Your task to perform on an android device: turn off smart reply in the gmail app Image 0: 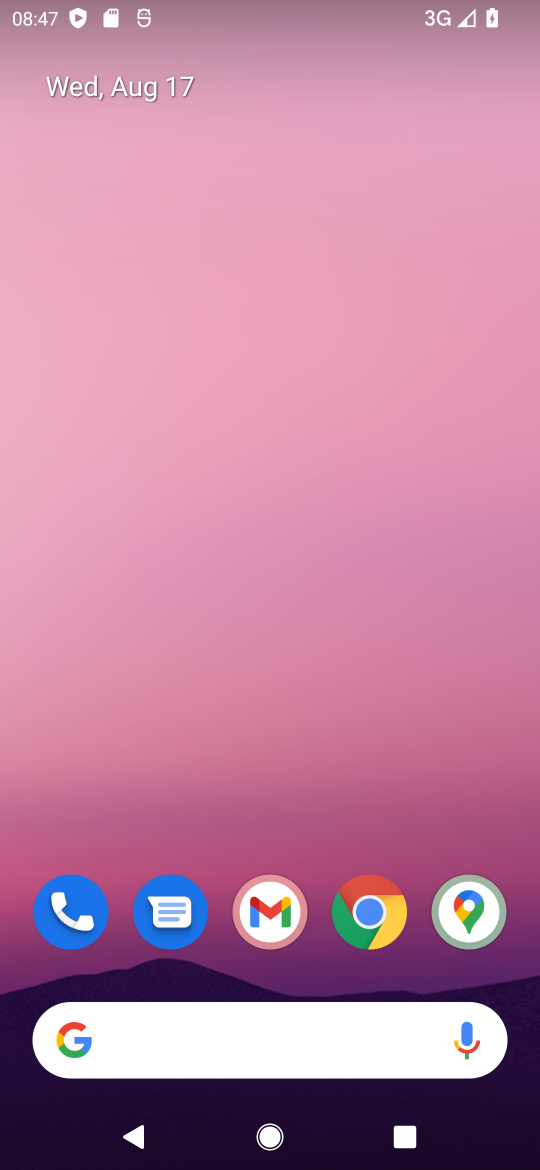
Step 0: drag from (278, 1009) to (247, 128)
Your task to perform on an android device: turn off smart reply in the gmail app Image 1: 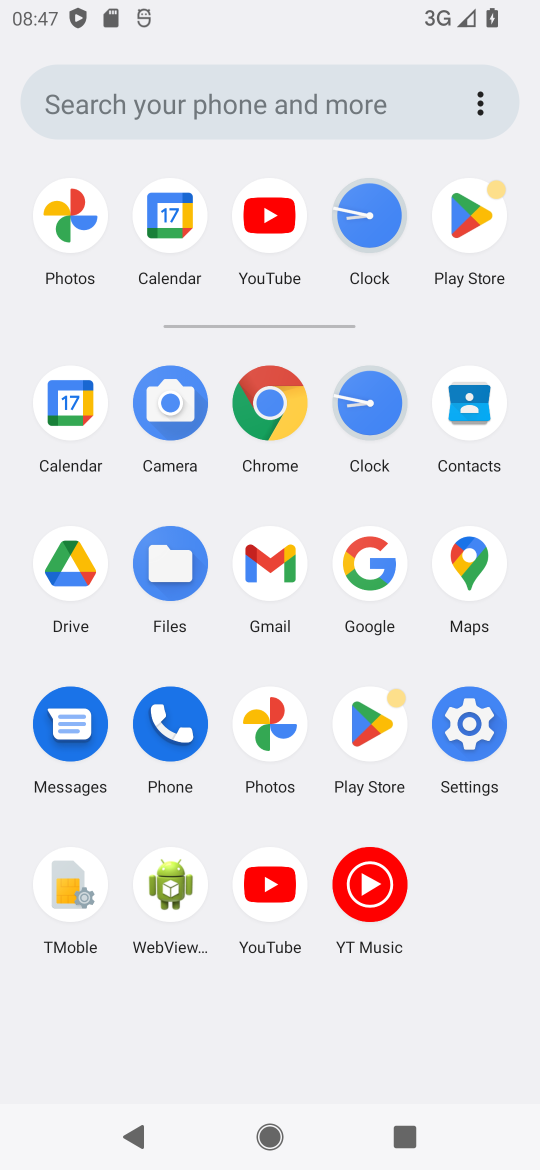
Step 1: click (267, 576)
Your task to perform on an android device: turn off smart reply in the gmail app Image 2: 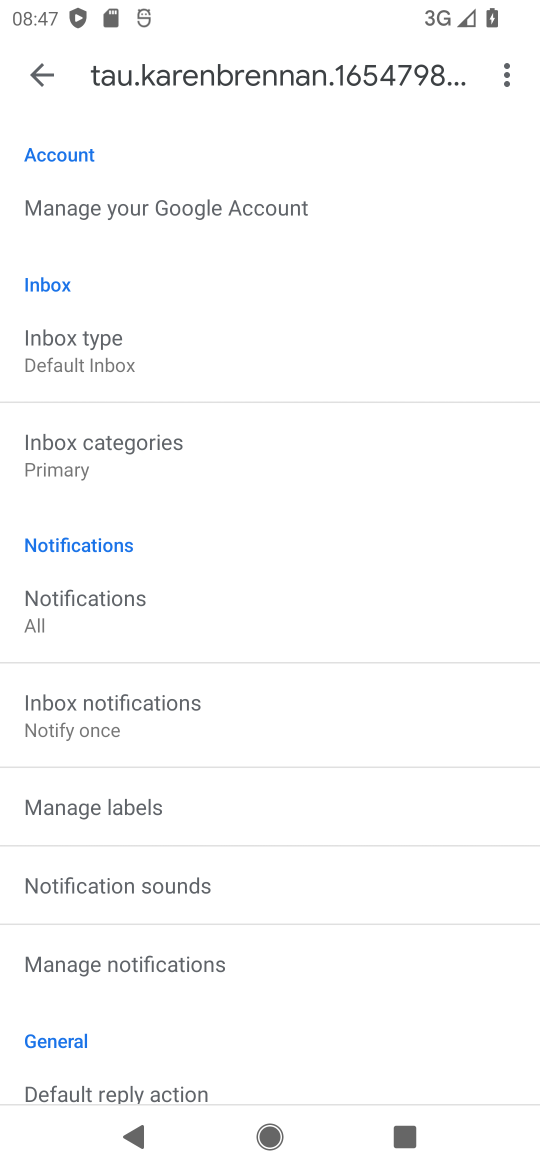
Step 2: drag from (145, 868) to (102, 279)
Your task to perform on an android device: turn off smart reply in the gmail app Image 3: 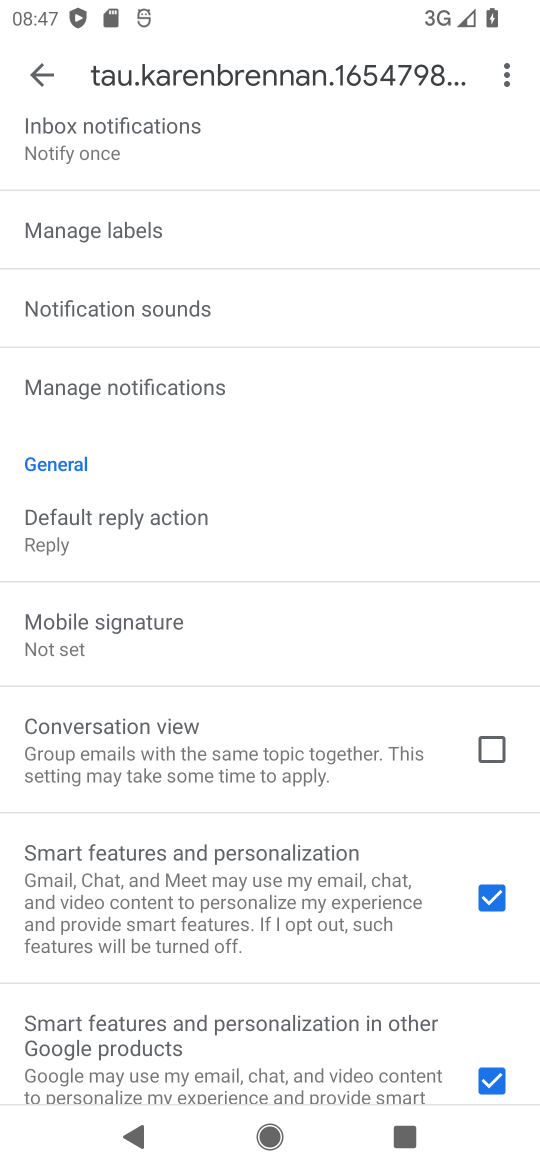
Step 3: drag from (141, 767) to (106, 372)
Your task to perform on an android device: turn off smart reply in the gmail app Image 4: 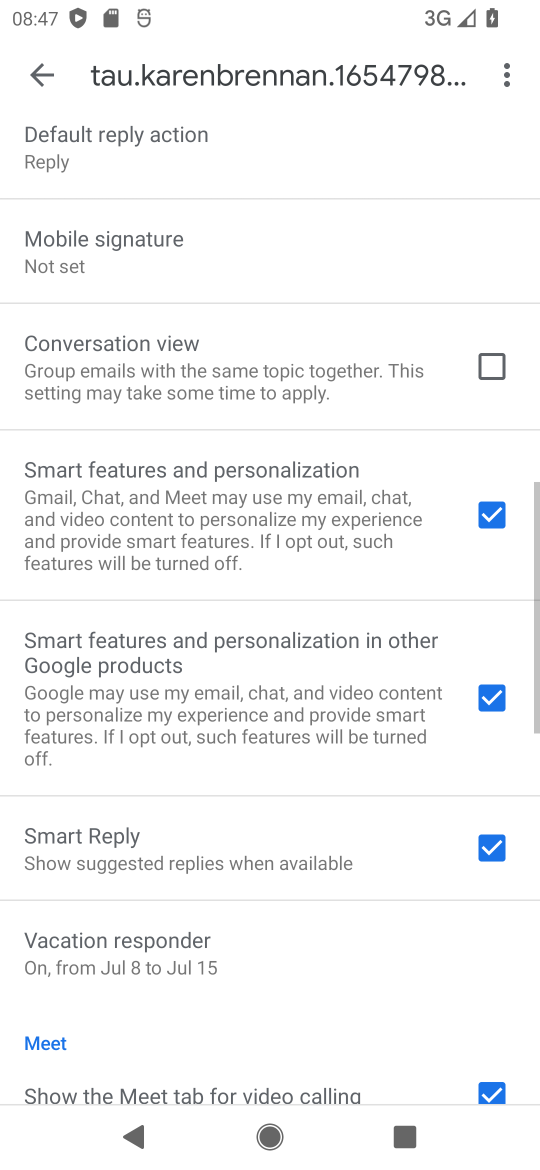
Step 4: drag from (134, 993) to (136, 424)
Your task to perform on an android device: turn off smart reply in the gmail app Image 5: 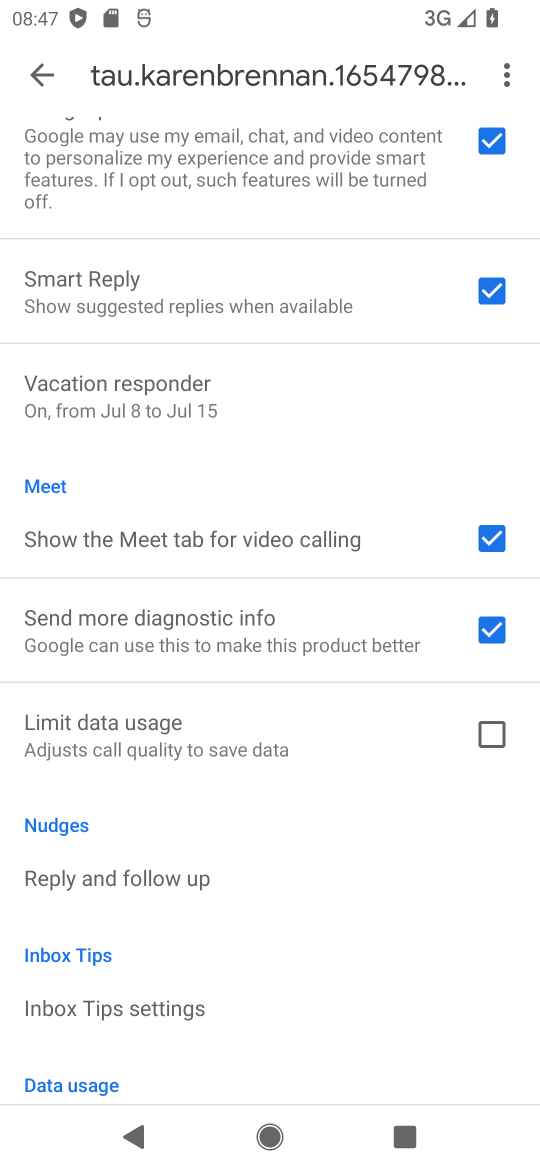
Step 5: click (493, 285)
Your task to perform on an android device: turn off smart reply in the gmail app Image 6: 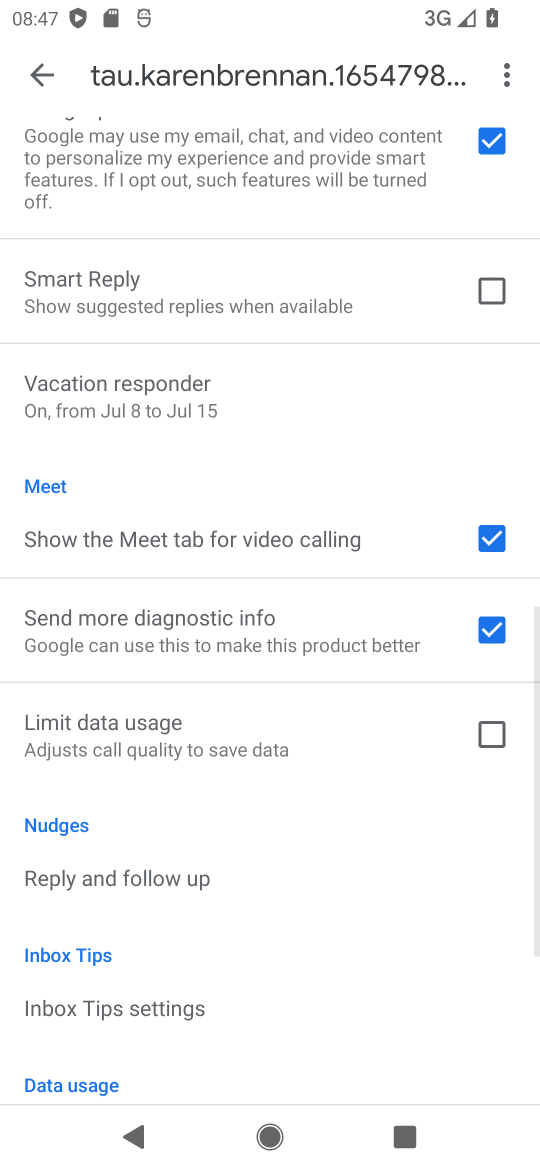
Step 6: task complete